Your task to perform on an android device: change the clock style Image 0: 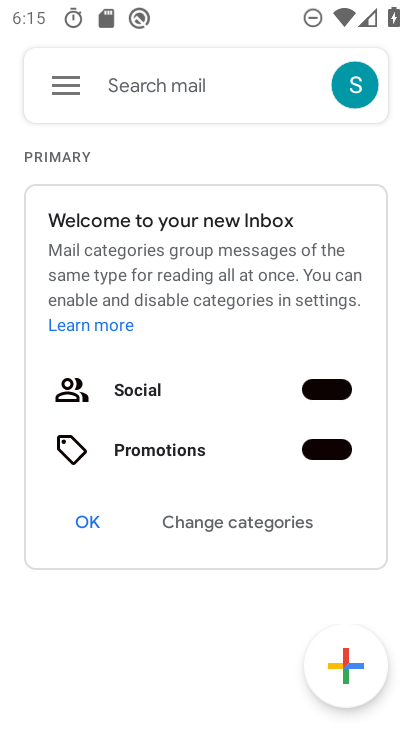
Step 0: press back button
Your task to perform on an android device: change the clock style Image 1: 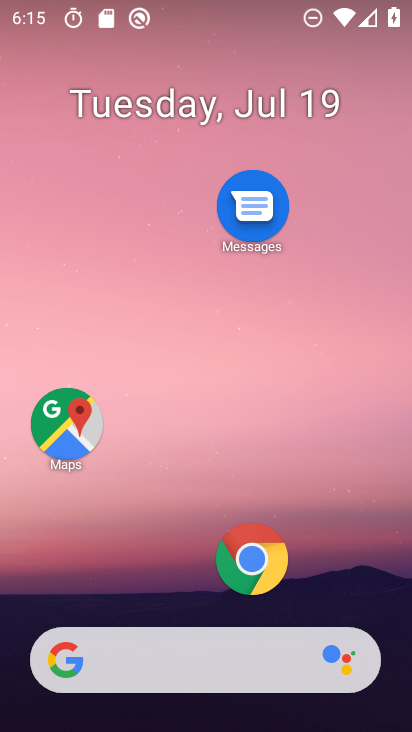
Step 1: drag from (123, 584) to (148, 11)
Your task to perform on an android device: change the clock style Image 2: 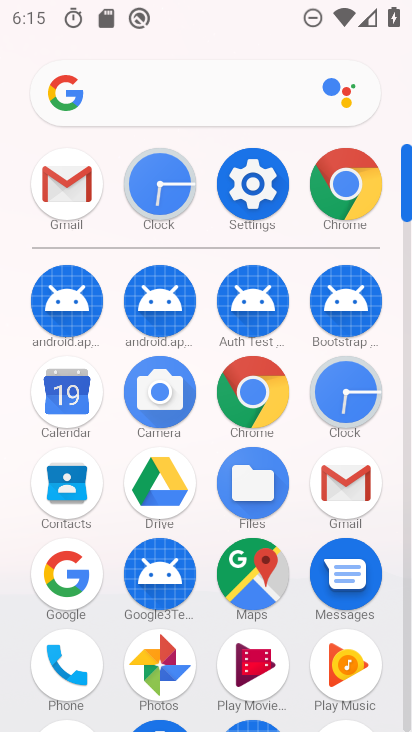
Step 2: click (179, 199)
Your task to perform on an android device: change the clock style Image 3: 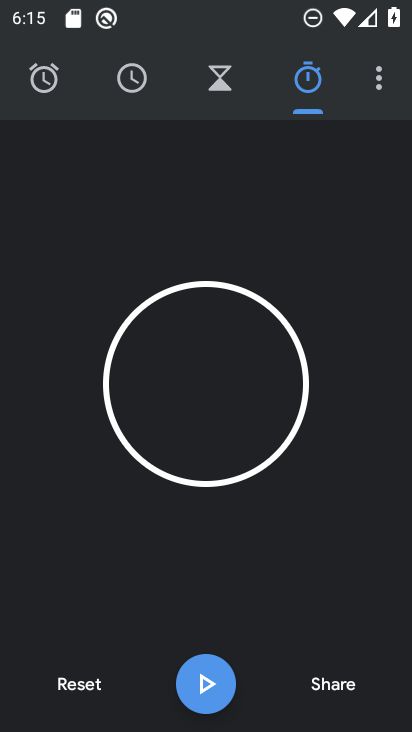
Step 3: click (391, 73)
Your task to perform on an android device: change the clock style Image 4: 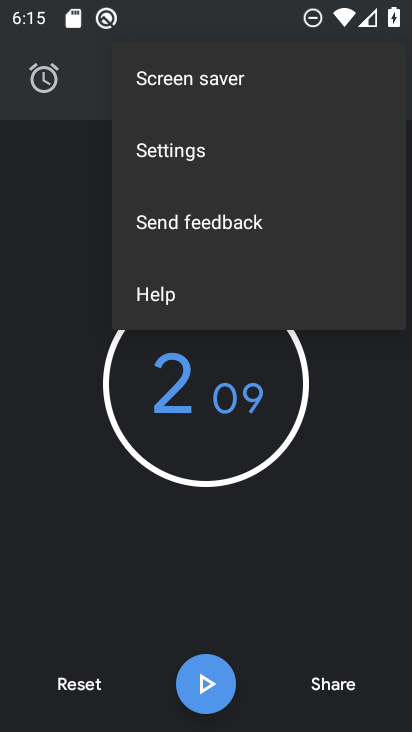
Step 4: click (185, 144)
Your task to perform on an android device: change the clock style Image 5: 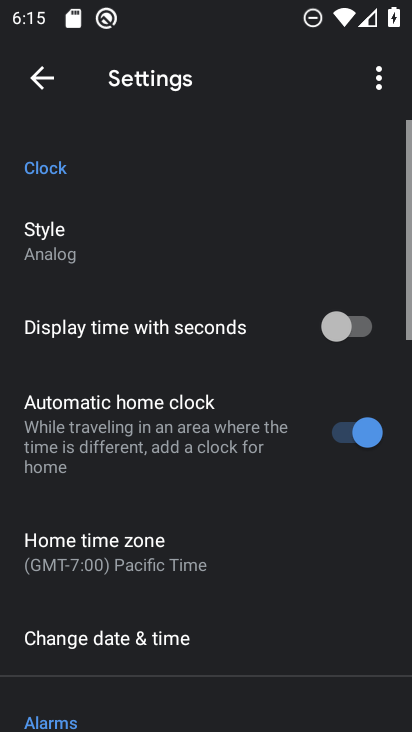
Step 5: click (78, 246)
Your task to perform on an android device: change the clock style Image 6: 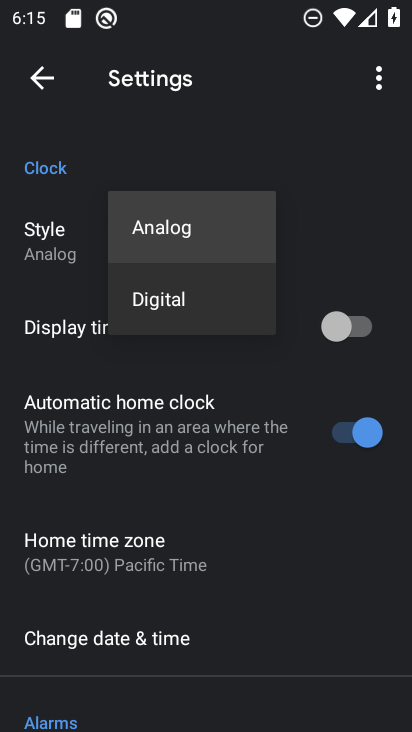
Step 6: click (173, 306)
Your task to perform on an android device: change the clock style Image 7: 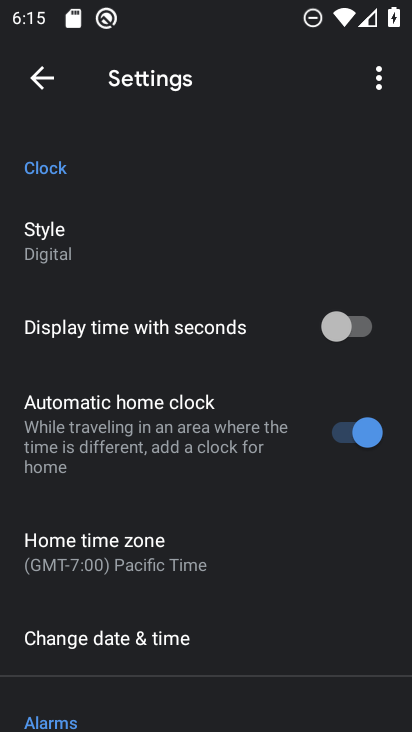
Step 7: task complete